Your task to perform on an android device: Do I have any events today? Image 0: 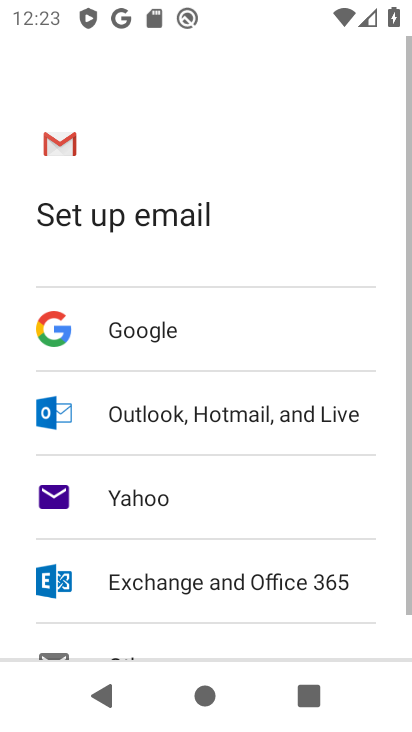
Step 0: press home button
Your task to perform on an android device: Do I have any events today? Image 1: 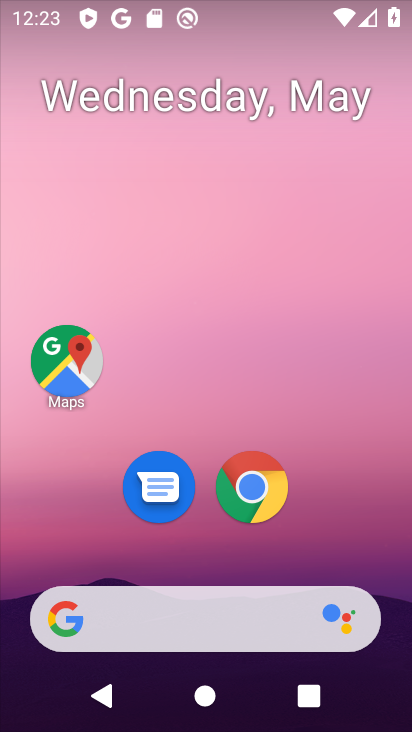
Step 1: drag from (245, 563) to (267, 120)
Your task to perform on an android device: Do I have any events today? Image 2: 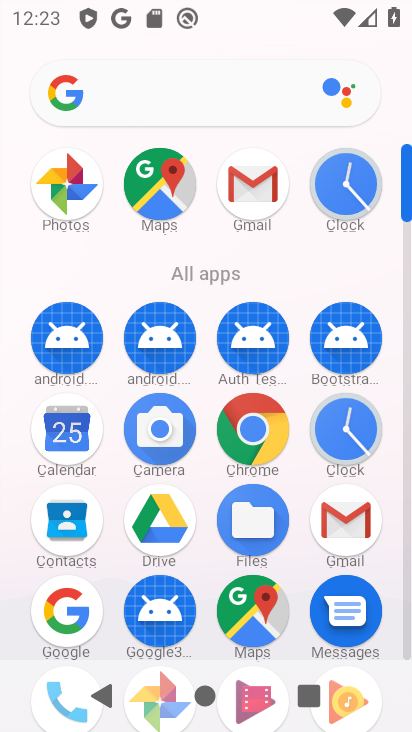
Step 2: click (65, 438)
Your task to perform on an android device: Do I have any events today? Image 3: 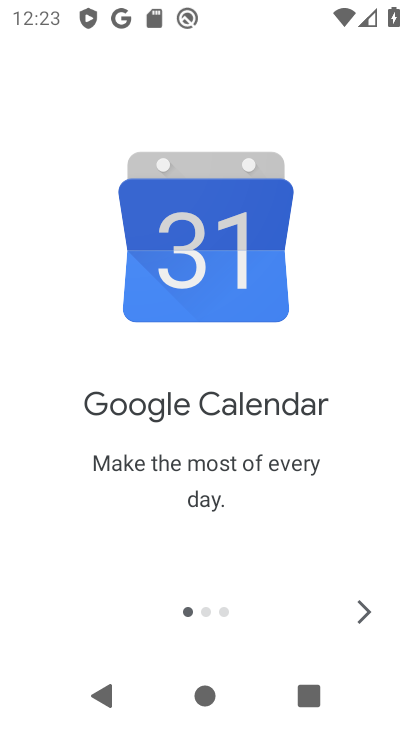
Step 3: click (364, 596)
Your task to perform on an android device: Do I have any events today? Image 4: 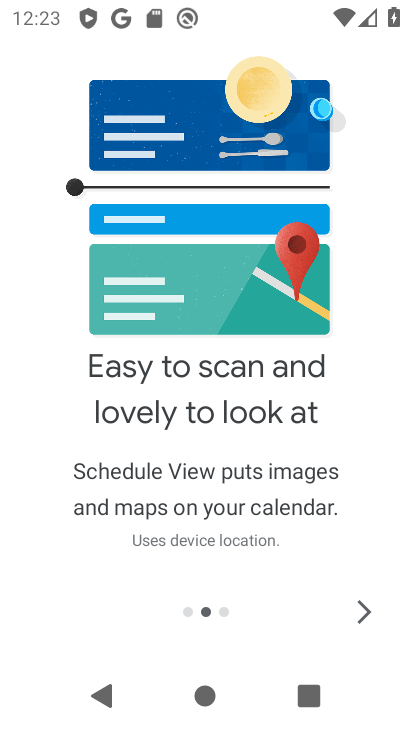
Step 4: click (366, 598)
Your task to perform on an android device: Do I have any events today? Image 5: 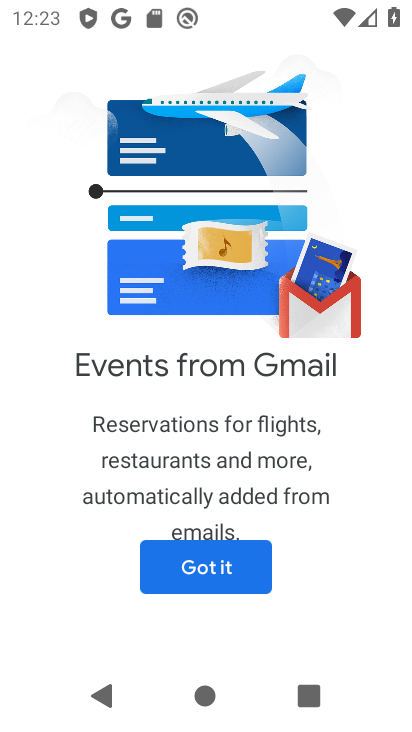
Step 5: click (237, 572)
Your task to perform on an android device: Do I have any events today? Image 6: 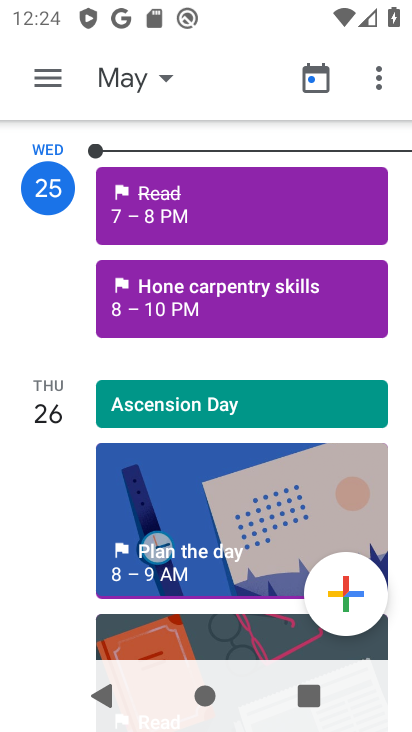
Step 6: click (40, 84)
Your task to perform on an android device: Do I have any events today? Image 7: 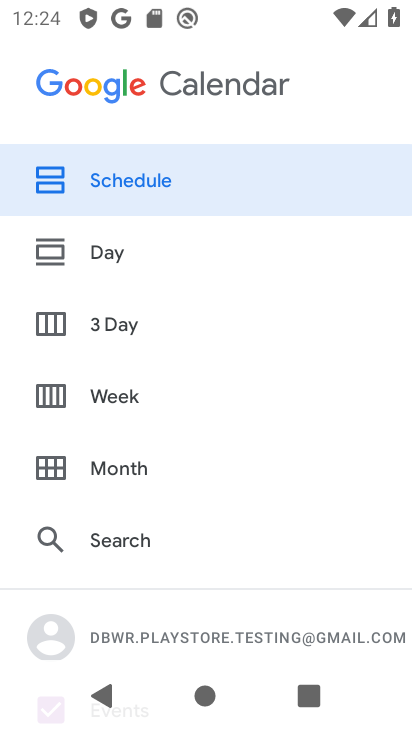
Step 7: drag from (112, 518) to (185, 165)
Your task to perform on an android device: Do I have any events today? Image 8: 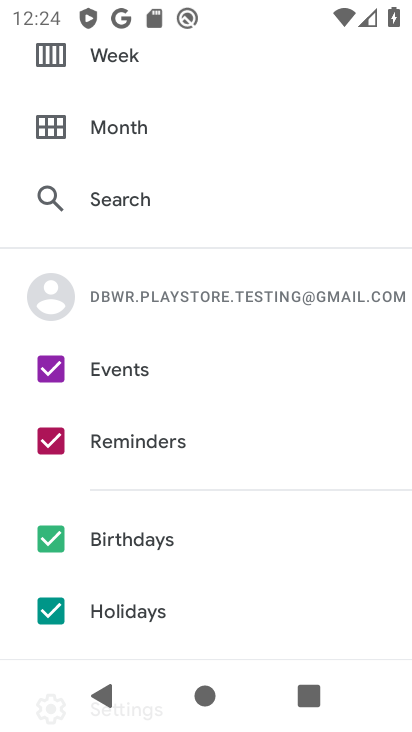
Step 8: click (130, 444)
Your task to perform on an android device: Do I have any events today? Image 9: 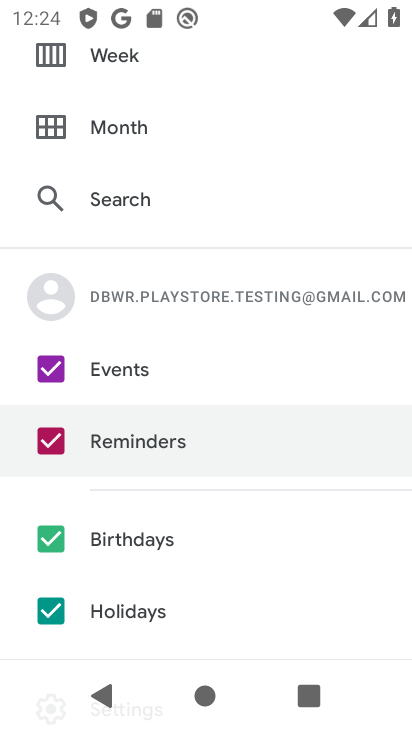
Step 9: click (130, 547)
Your task to perform on an android device: Do I have any events today? Image 10: 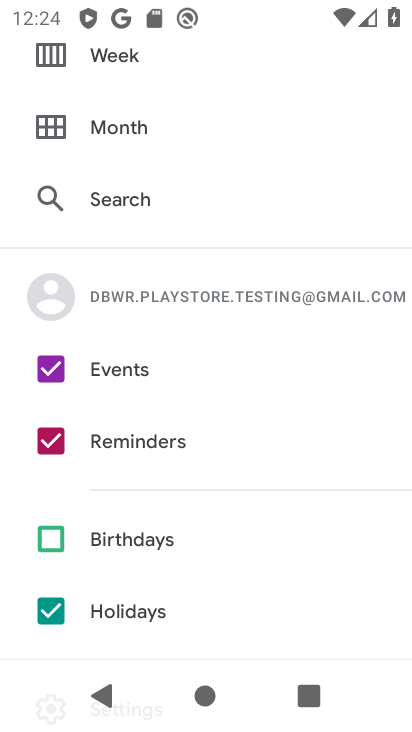
Step 10: click (105, 613)
Your task to perform on an android device: Do I have any events today? Image 11: 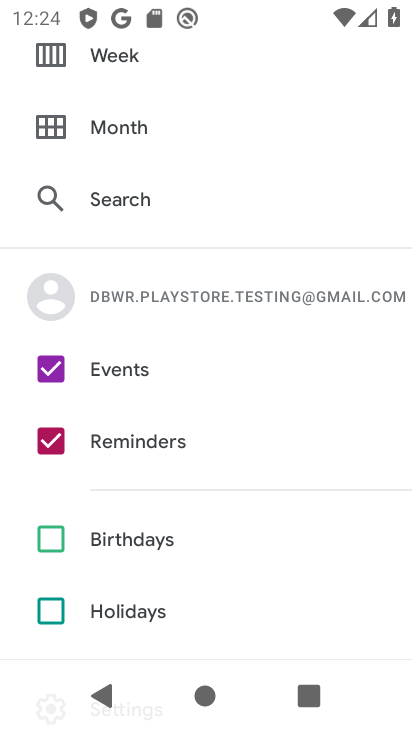
Step 11: click (98, 440)
Your task to perform on an android device: Do I have any events today? Image 12: 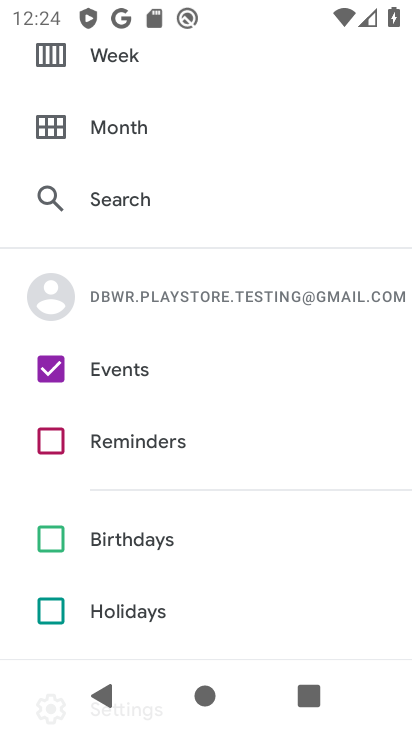
Step 12: drag from (274, 233) to (279, 525)
Your task to perform on an android device: Do I have any events today? Image 13: 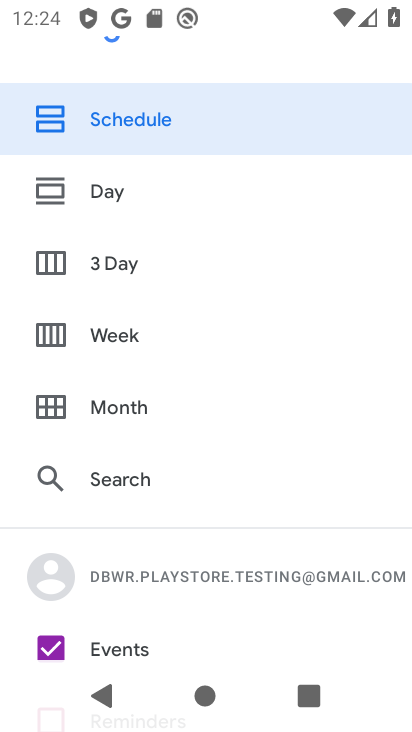
Step 13: click (133, 199)
Your task to perform on an android device: Do I have any events today? Image 14: 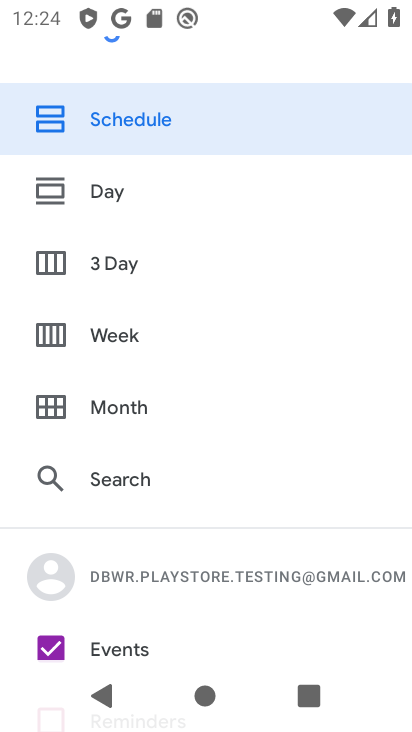
Step 14: click (111, 208)
Your task to perform on an android device: Do I have any events today? Image 15: 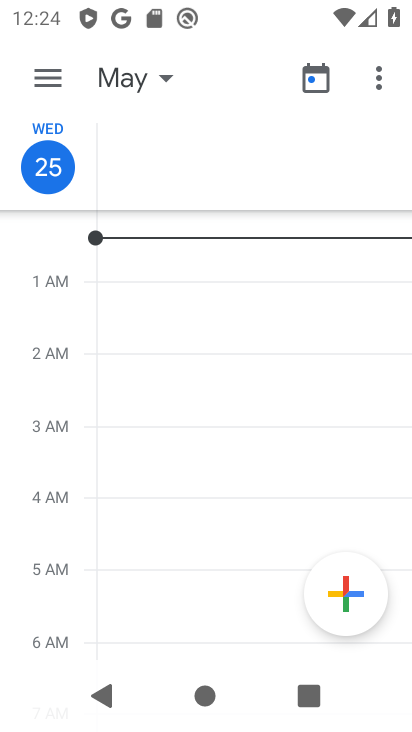
Step 15: task complete